Your task to perform on an android device: turn on the 12-hour format for clock Image 0: 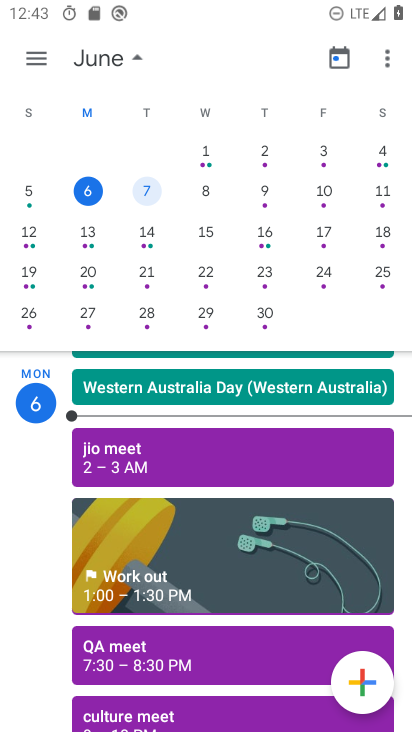
Step 0: press home button
Your task to perform on an android device: turn on the 12-hour format for clock Image 1: 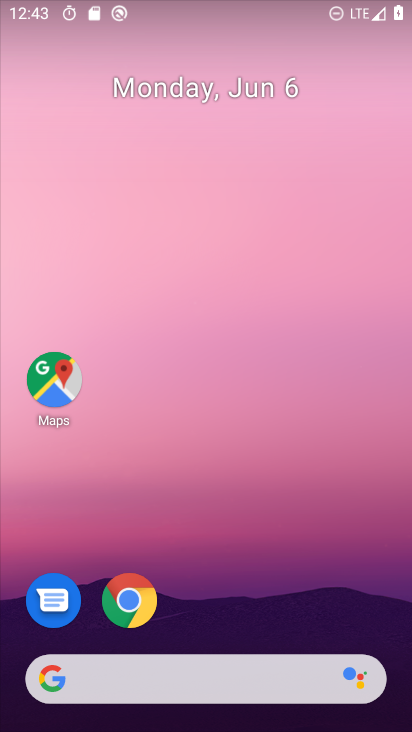
Step 1: drag from (200, 614) to (223, 256)
Your task to perform on an android device: turn on the 12-hour format for clock Image 2: 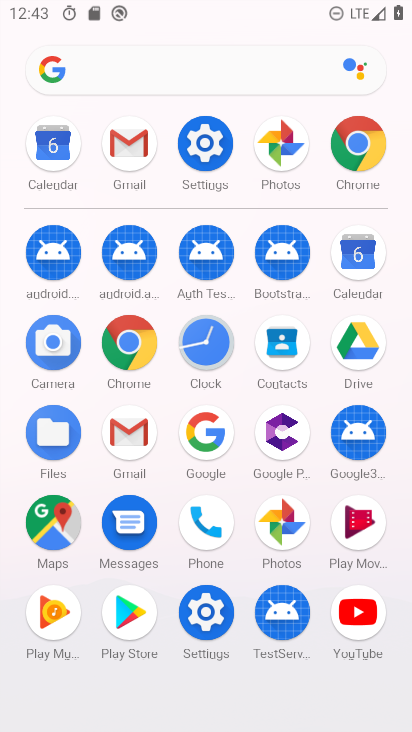
Step 2: click (211, 347)
Your task to perform on an android device: turn on the 12-hour format for clock Image 3: 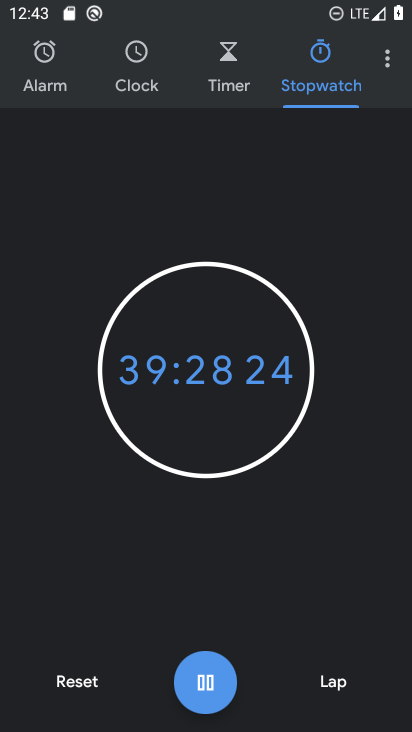
Step 3: click (378, 68)
Your task to perform on an android device: turn on the 12-hour format for clock Image 4: 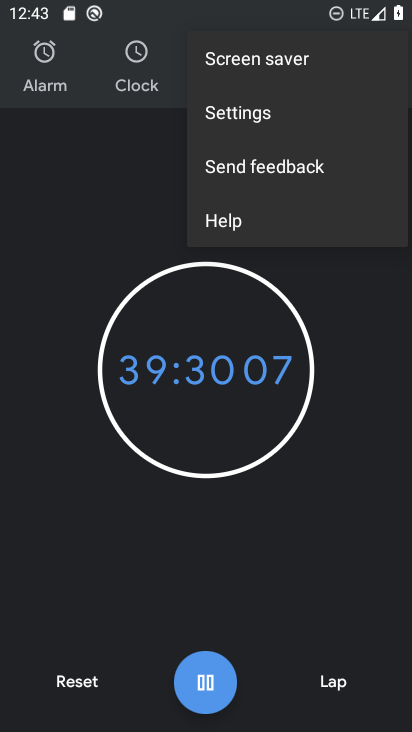
Step 4: click (251, 118)
Your task to perform on an android device: turn on the 12-hour format for clock Image 5: 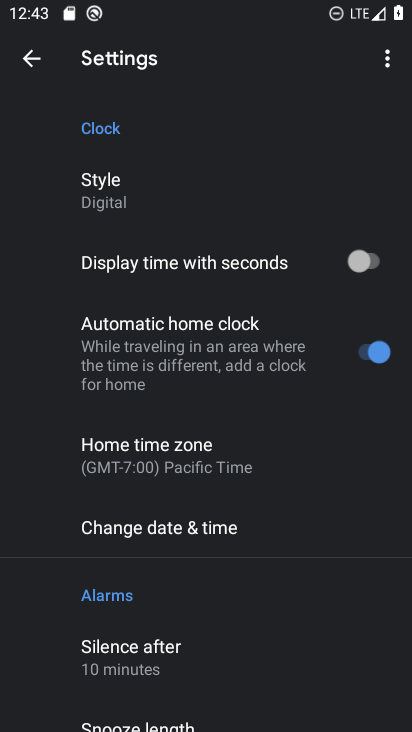
Step 5: click (143, 531)
Your task to perform on an android device: turn on the 12-hour format for clock Image 6: 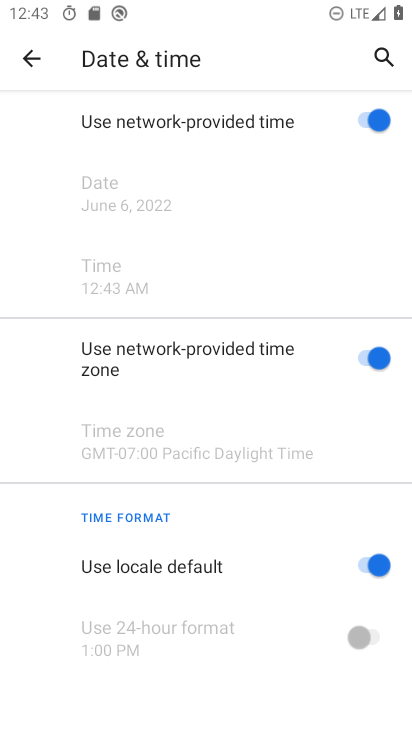
Step 6: task complete